Your task to perform on an android device: Clear the cart on target. Search for "logitech g910" on target, select the first entry, add it to the cart, then select checkout. Image 0: 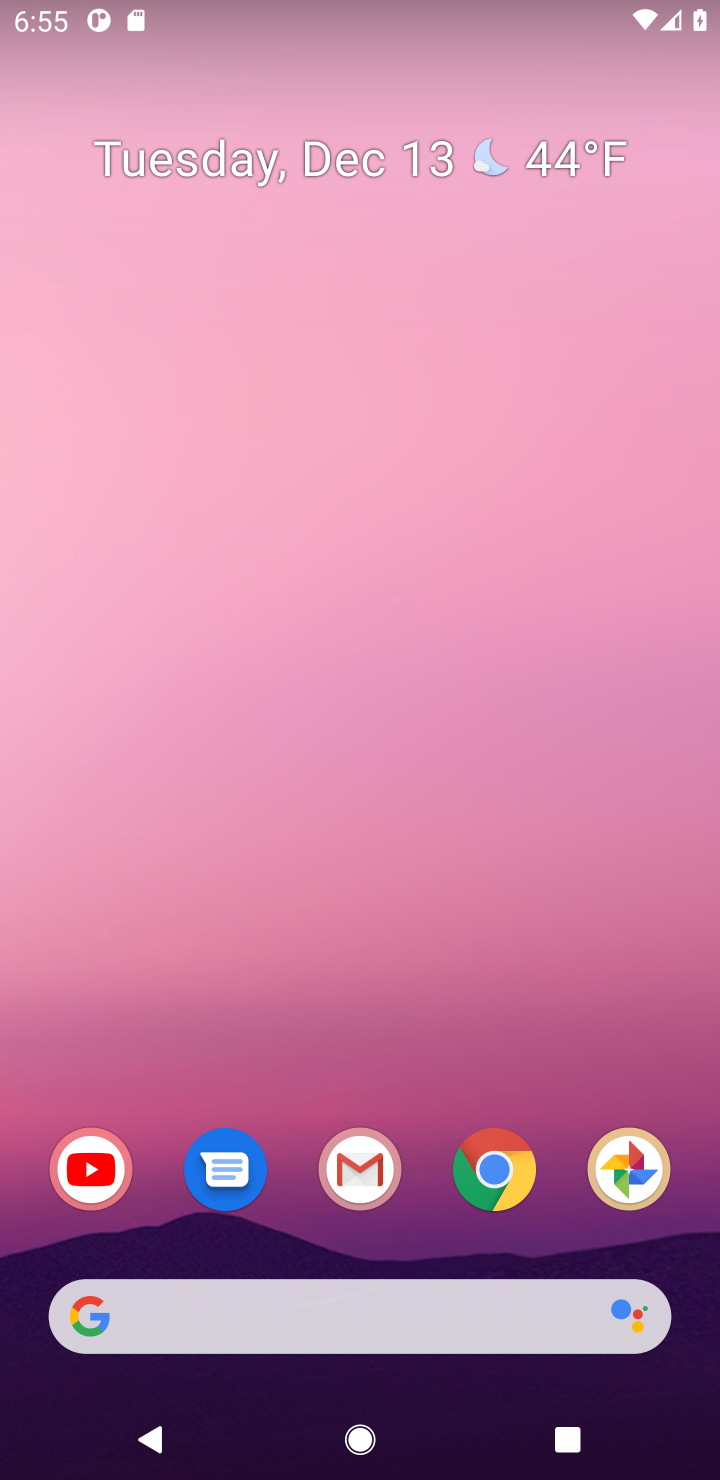
Step 0: click (462, 1194)
Your task to perform on an android device: Clear the cart on target. Search for "logitech g910" on target, select the first entry, add it to the cart, then select checkout. Image 1: 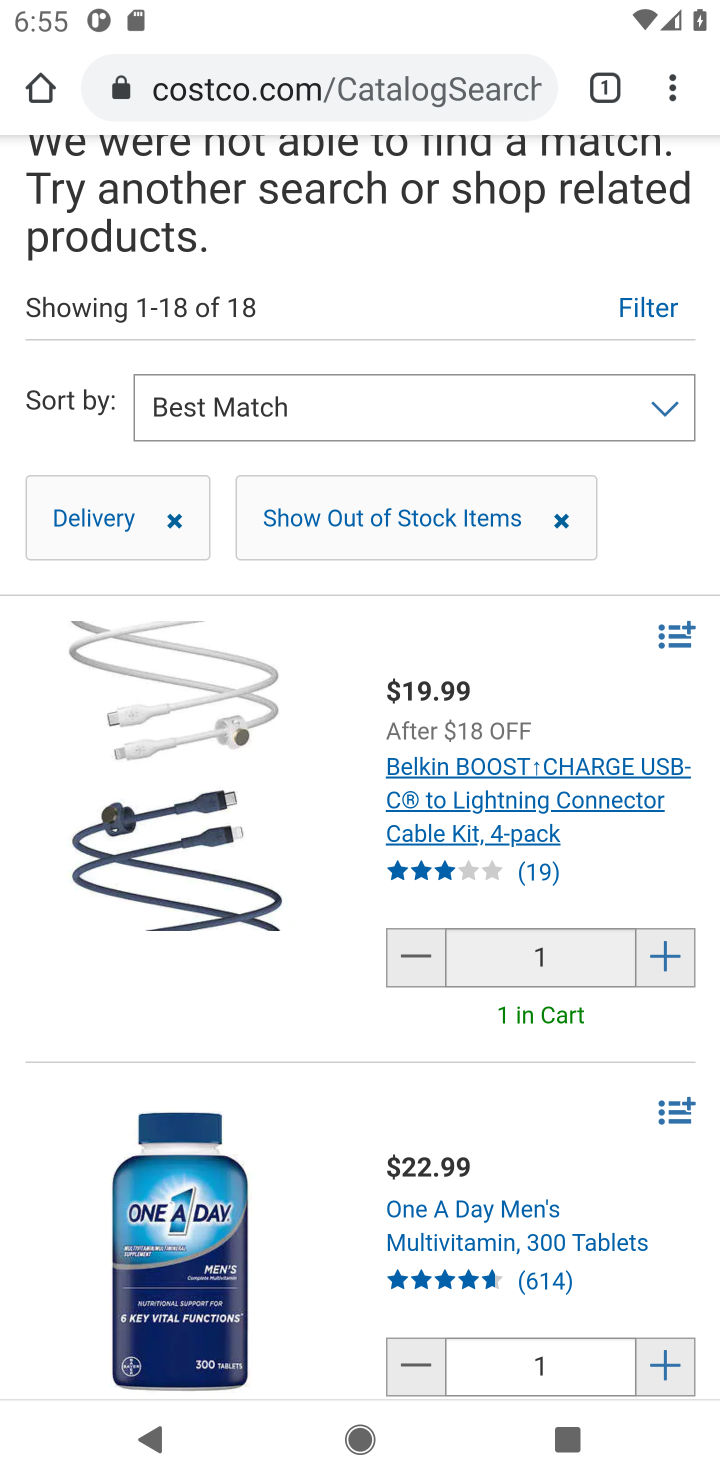
Step 1: click (248, 109)
Your task to perform on an android device: Clear the cart on target. Search for "logitech g910" on target, select the first entry, add it to the cart, then select checkout. Image 2: 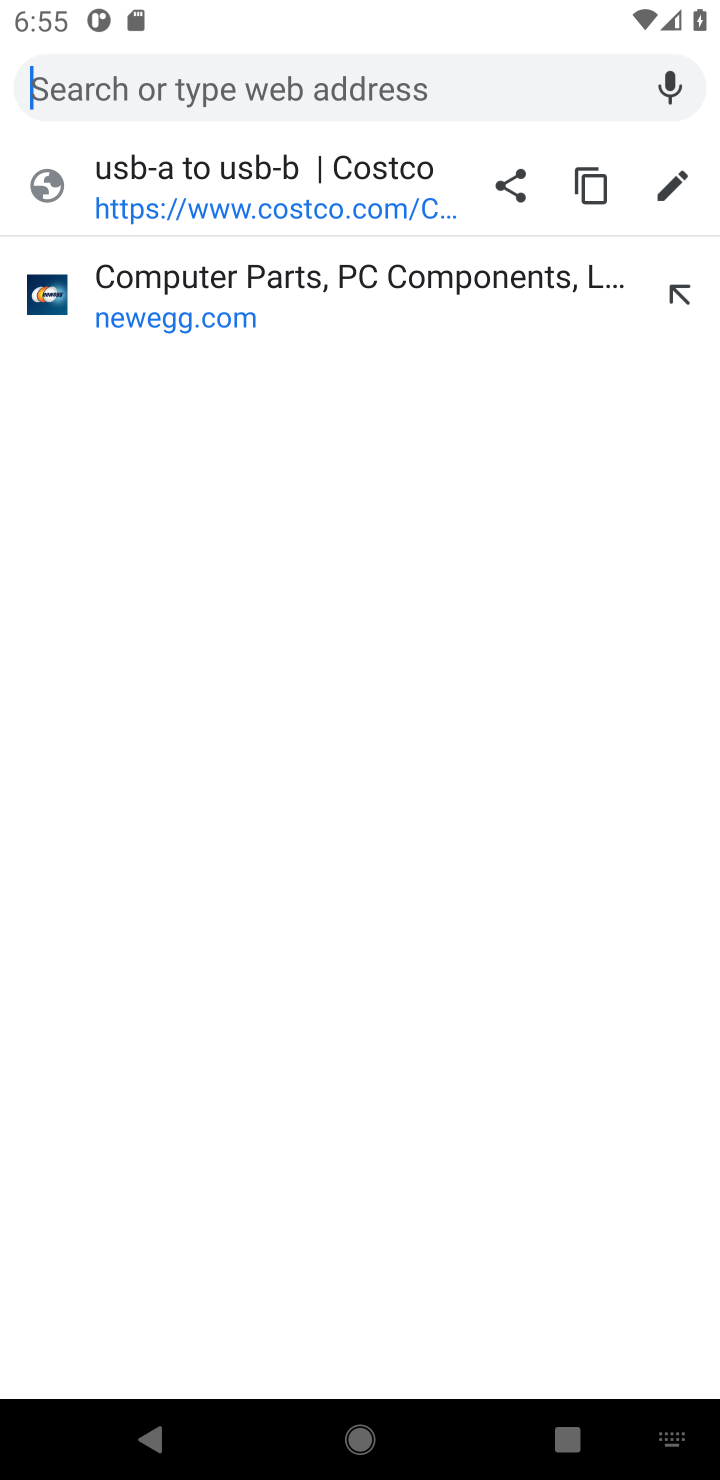
Step 2: type "target"
Your task to perform on an android device: Clear the cart on target. Search for "logitech g910" on target, select the first entry, add it to the cart, then select checkout. Image 3: 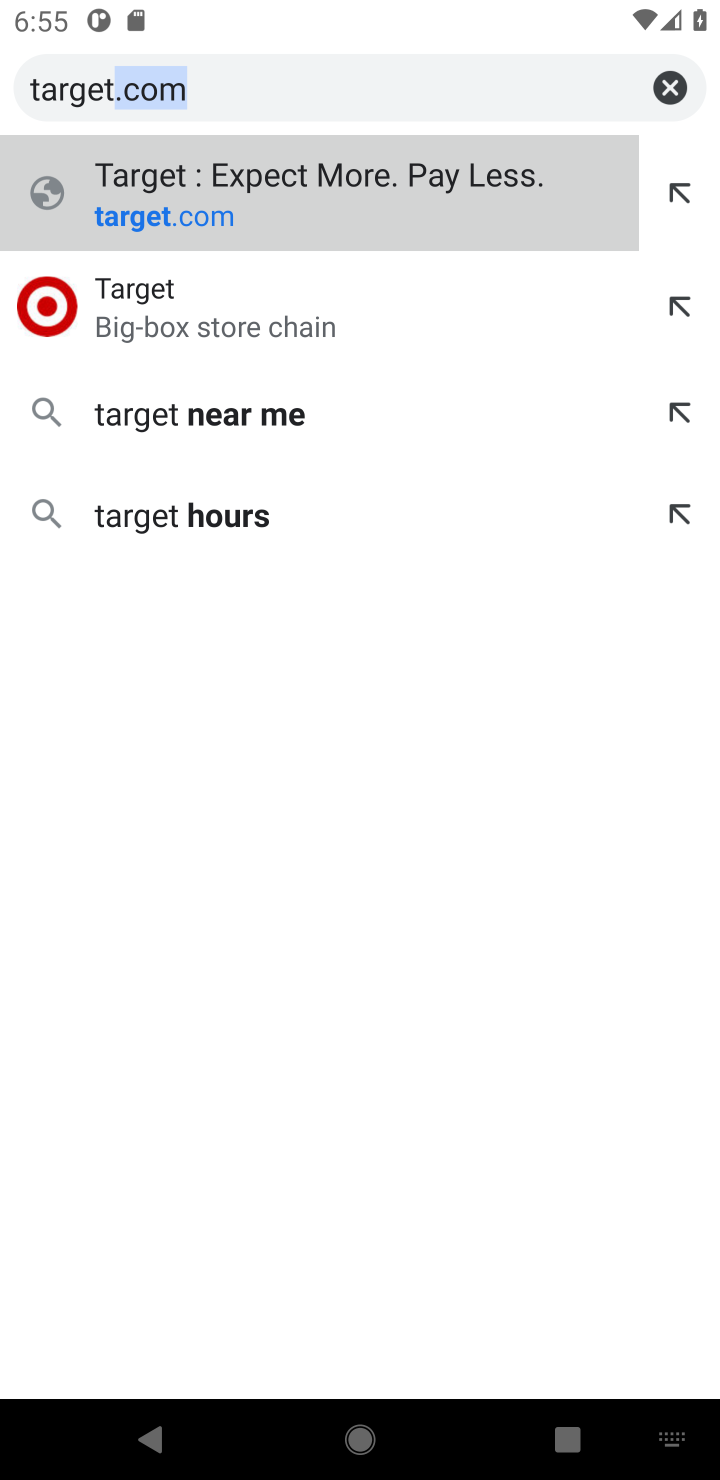
Step 3: click (186, 284)
Your task to perform on an android device: Clear the cart on target. Search for "logitech g910" on target, select the first entry, add it to the cart, then select checkout. Image 4: 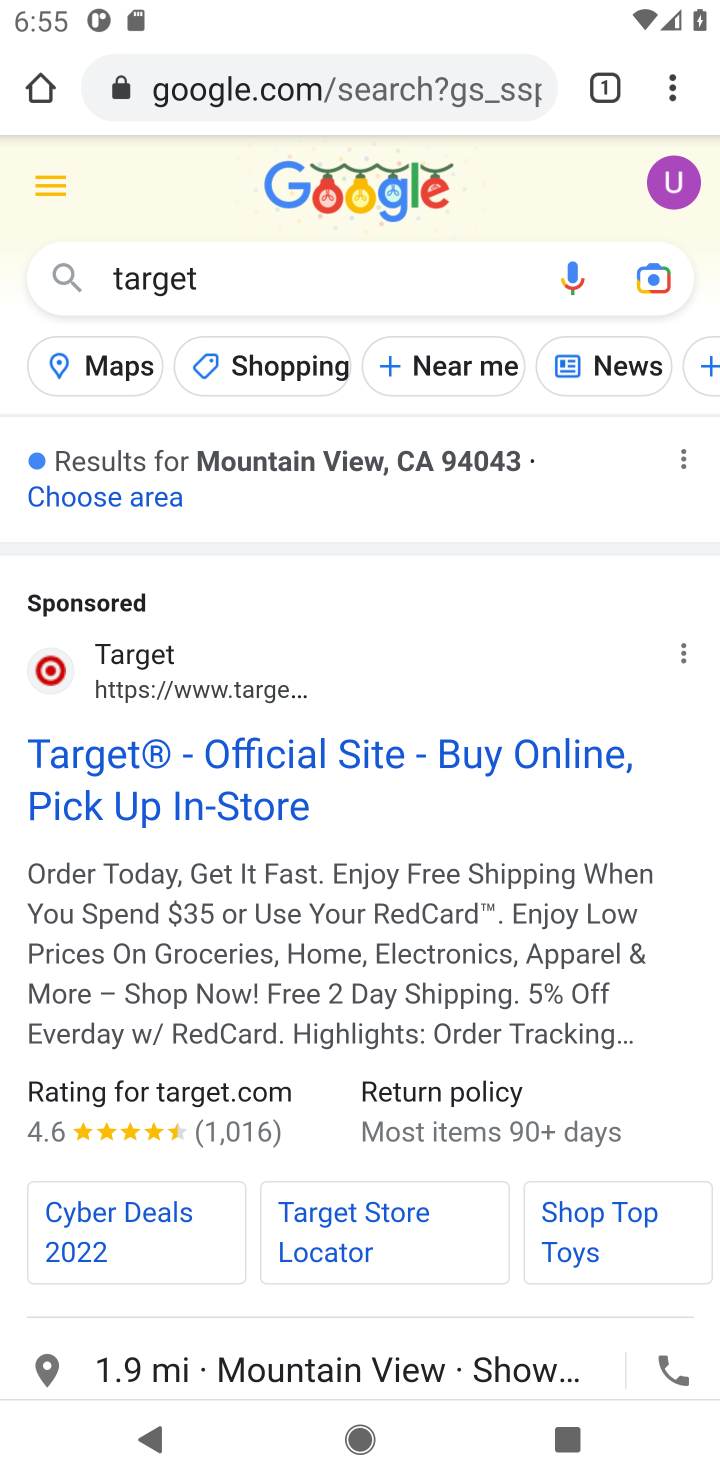
Step 4: click (344, 759)
Your task to perform on an android device: Clear the cart on target. Search for "logitech g910" on target, select the first entry, add it to the cart, then select checkout. Image 5: 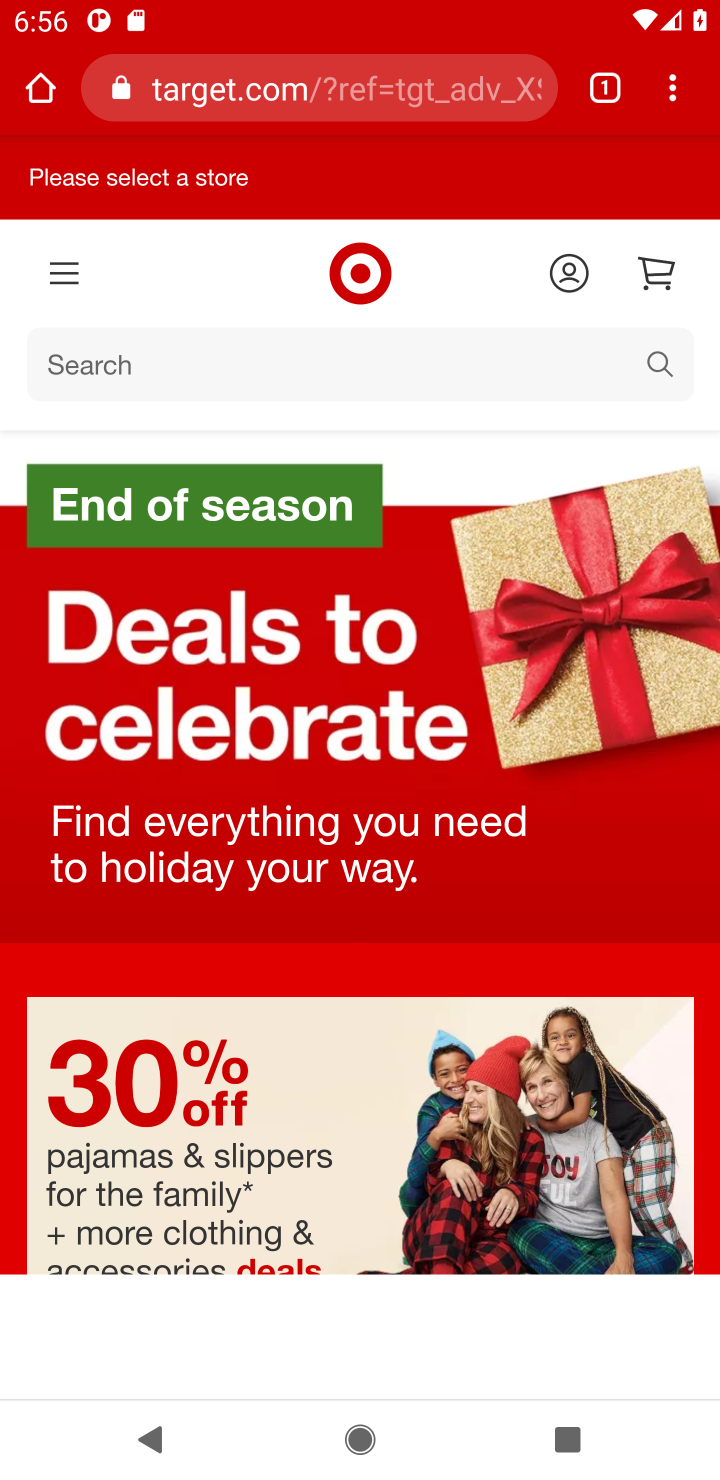
Step 5: click (231, 372)
Your task to perform on an android device: Clear the cart on target. Search for "logitech g910" on target, select the first entry, add it to the cart, then select checkout. Image 6: 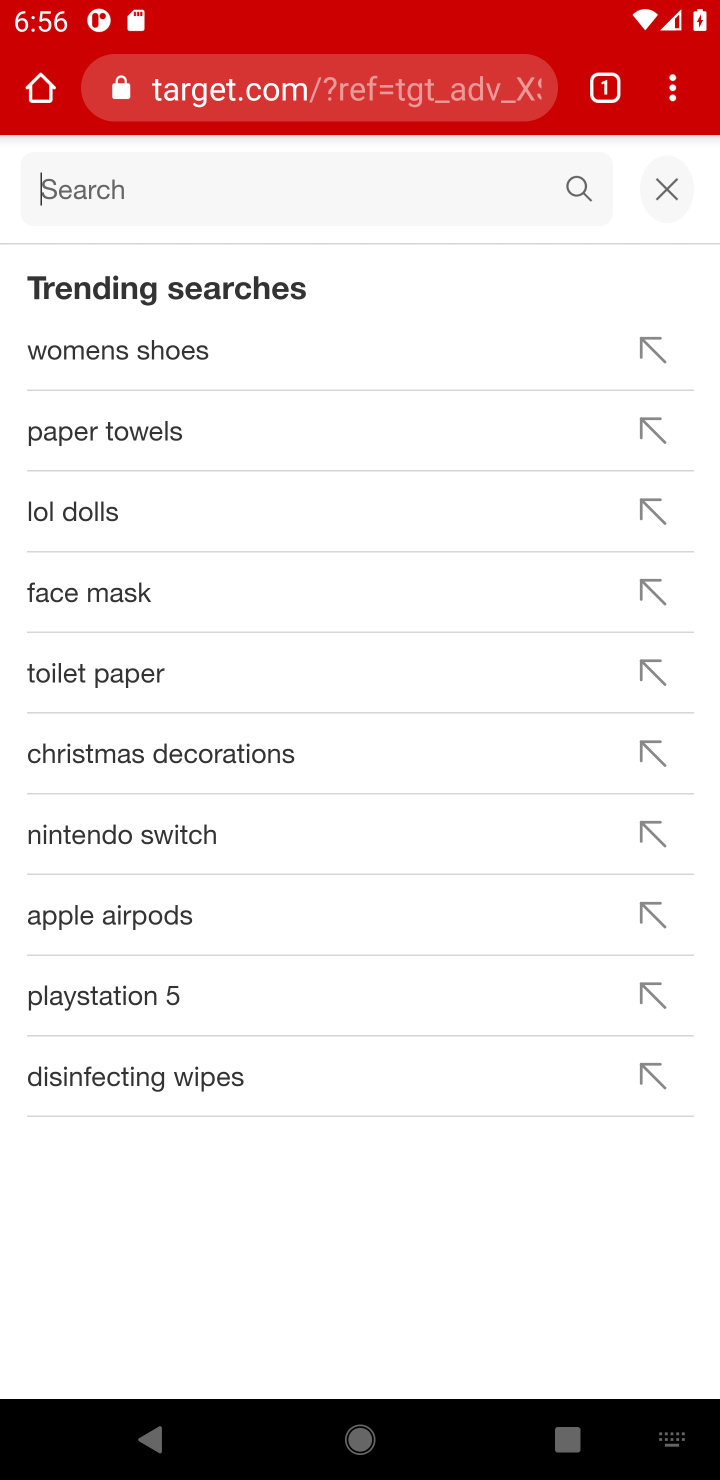
Step 6: type "logitech g910"
Your task to perform on an android device: Clear the cart on target. Search for "logitech g910" on target, select the first entry, add it to the cart, then select checkout. Image 7: 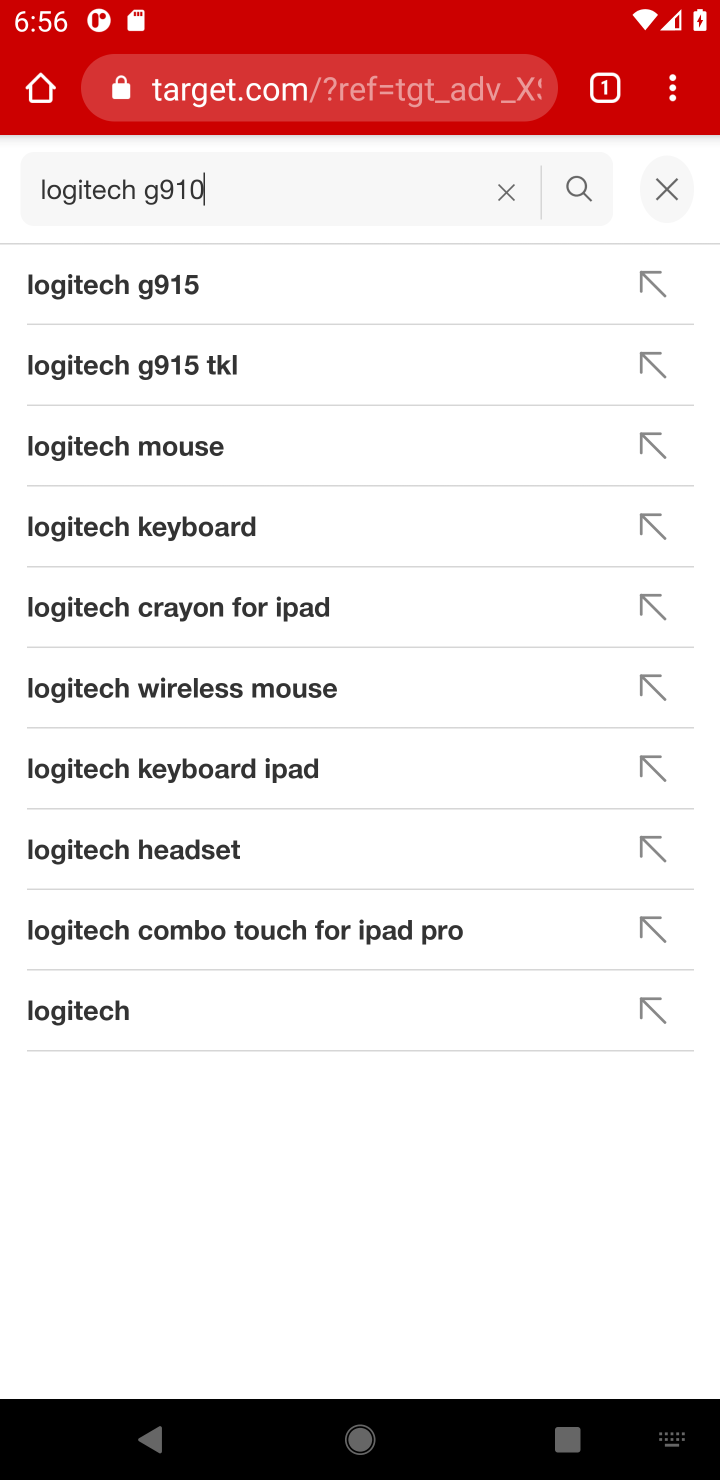
Step 7: click (568, 205)
Your task to perform on an android device: Clear the cart on target. Search for "logitech g910" on target, select the first entry, add it to the cart, then select checkout. Image 8: 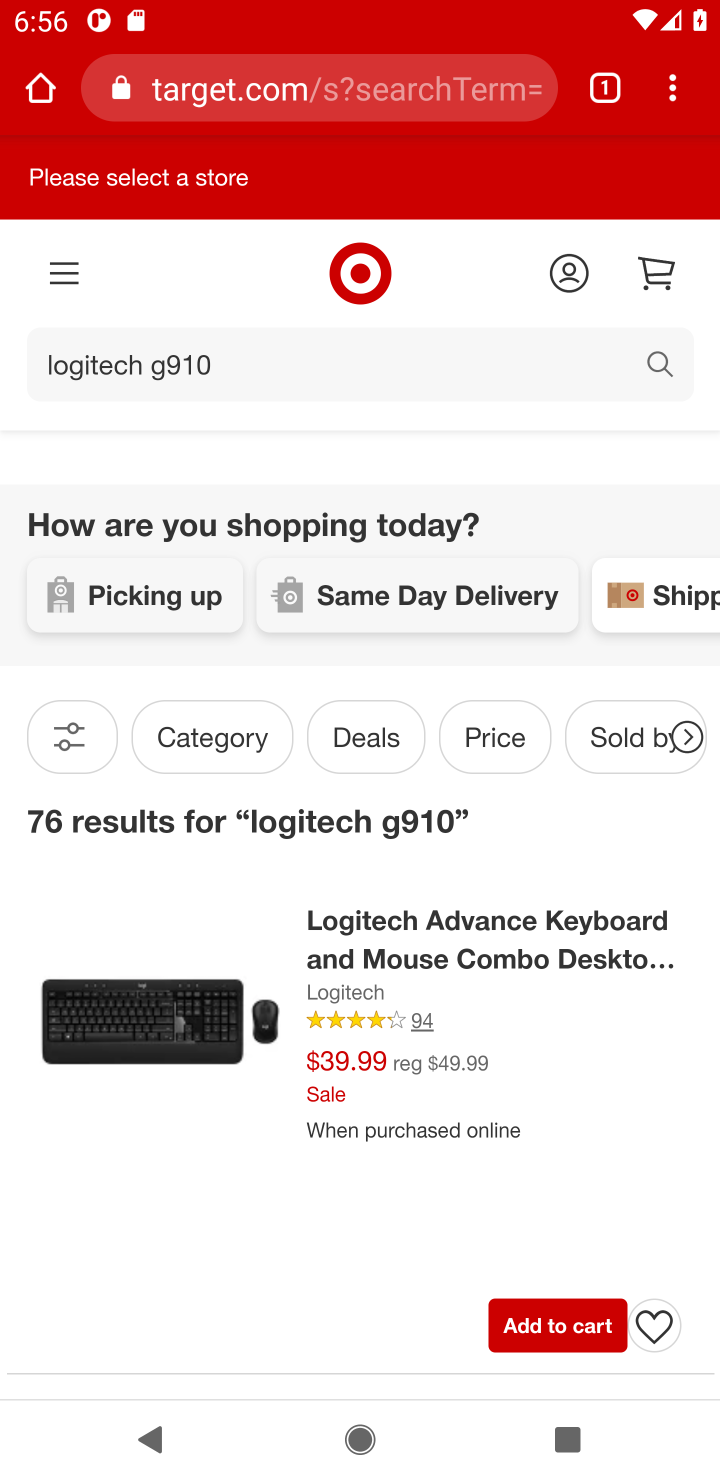
Step 8: click (591, 1306)
Your task to perform on an android device: Clear the cart on target. Search for "logitech g910" on target, select the first entry, add it to the cart, then select checkout. Image 9: 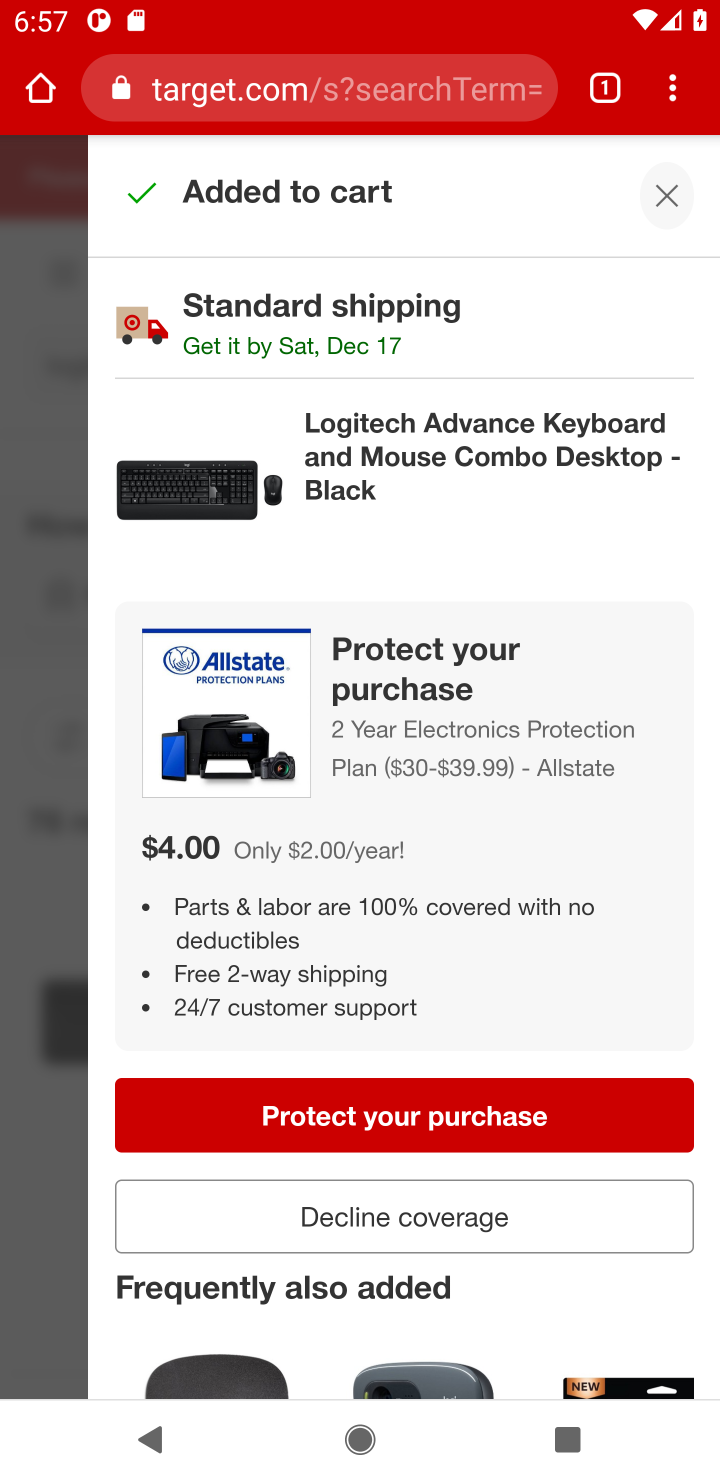
Step 9: task complete